Your task to perform on an android device: turn on sleep mode Image 0: 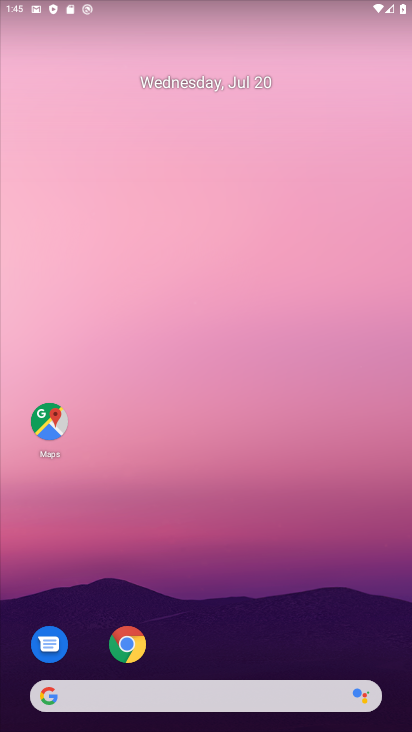
Step 0: drag from (300, 662) to (330, 57)
Your task to perform on an android device: turn on sleep mode Image 1: 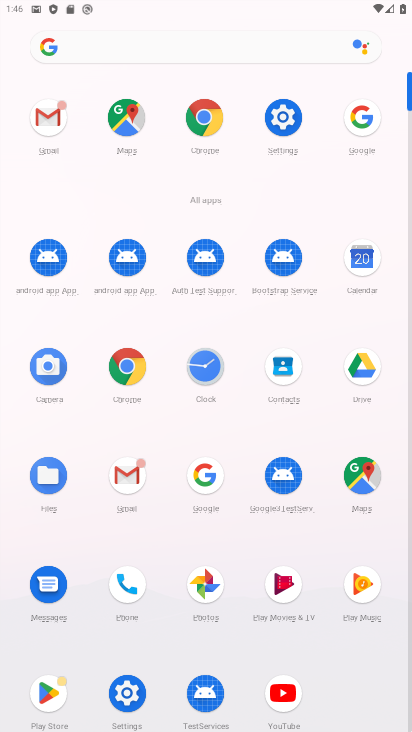
Step 1: click (277, 130)
Your task to perform on an android device: turn on sleep mode Image 2: 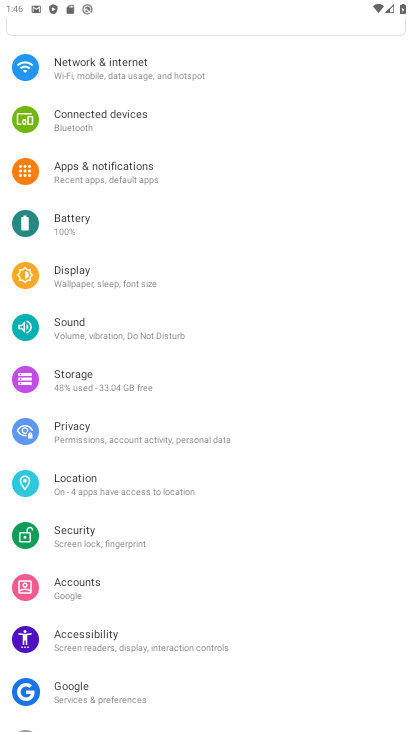
Step 2: click (86, 280)
Your task to perform on an android device: turn on sleep mode Image 3: 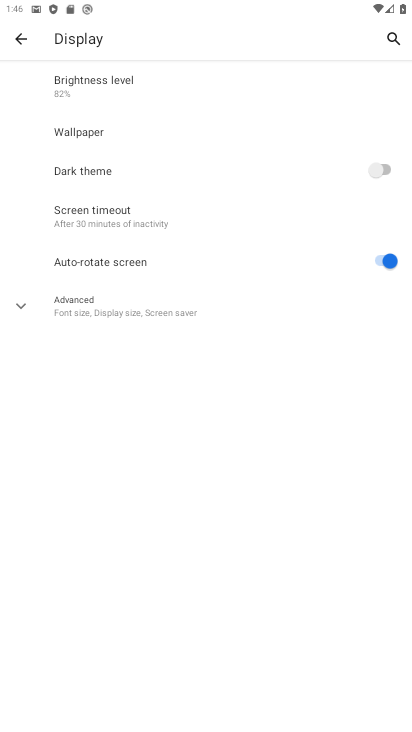
Step 3: task complete